Your task to perform on an android device: change the clock display to analog Image 0: 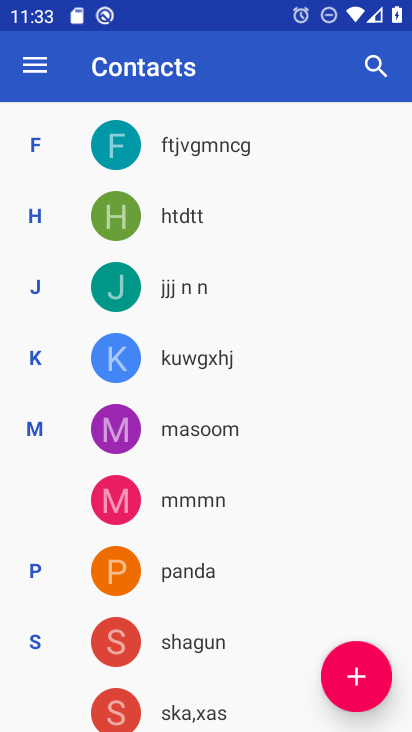
Step 0: press home button
Your task to perform on an android device: change the clock display to analog Image 1: 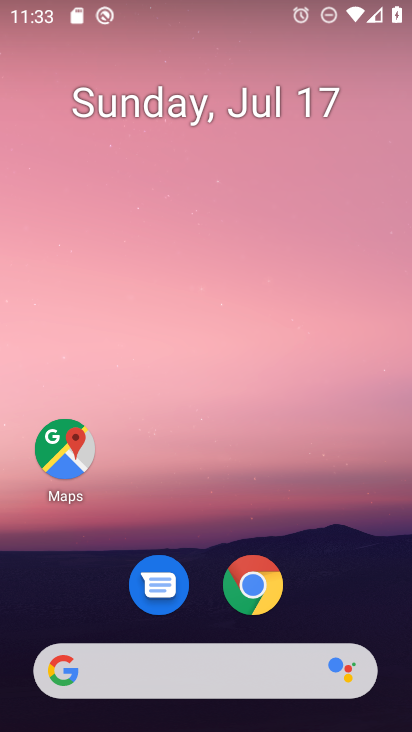
Step 1: drag from (210, 518) to (201, 21)
Your task to perform on an android device: change the clock display to analog Image 2: 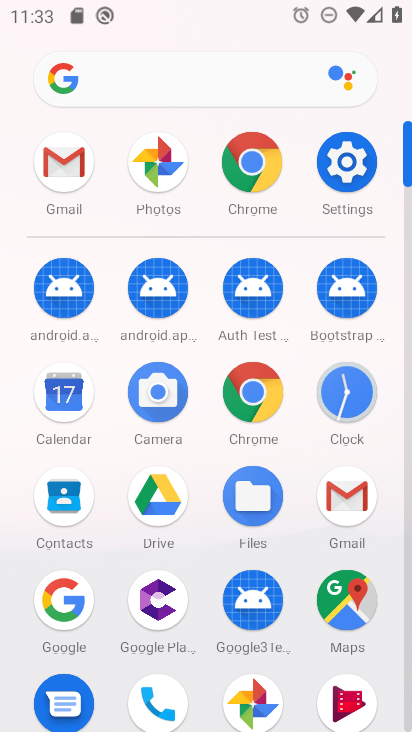
Step 2: click (354, 390)
Your task to perform on an android device: change the clock display to analog Image 3: 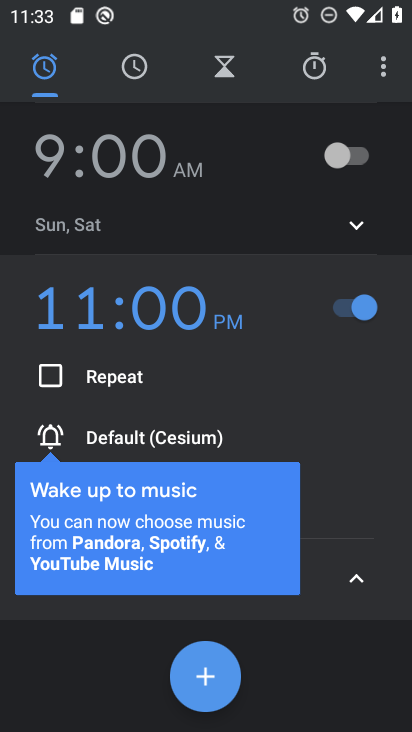
Step 3: click (382, 65)
Your task to perform on an android device: change the clock display to analog Image 4: 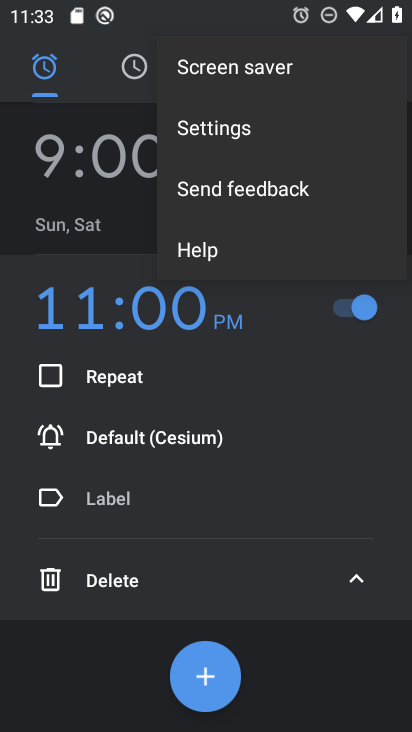
Step 4: click (248, 135)
Your task to perform on an android device: change the clock display to analog Image 5: 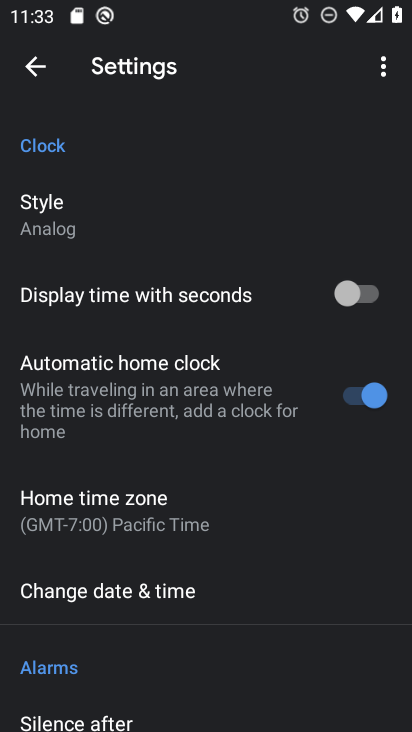
Step 5: click (37, 206)
Your task to perform on an android device: change the clock display to analog Image 6: 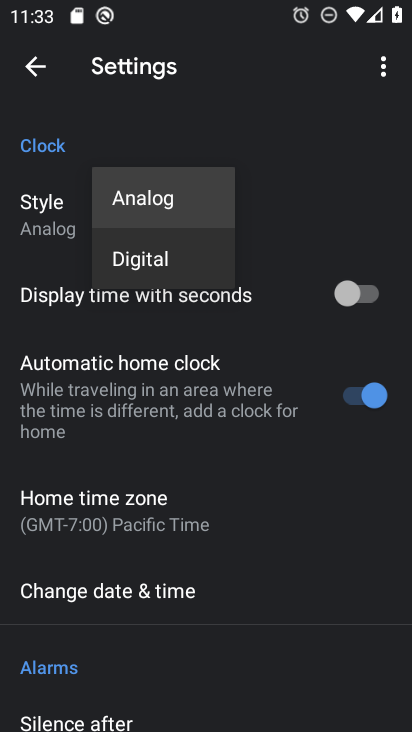
Step 6: click (137, 194)
Your task to perform on an android device: change the clock display to analog Image 7: 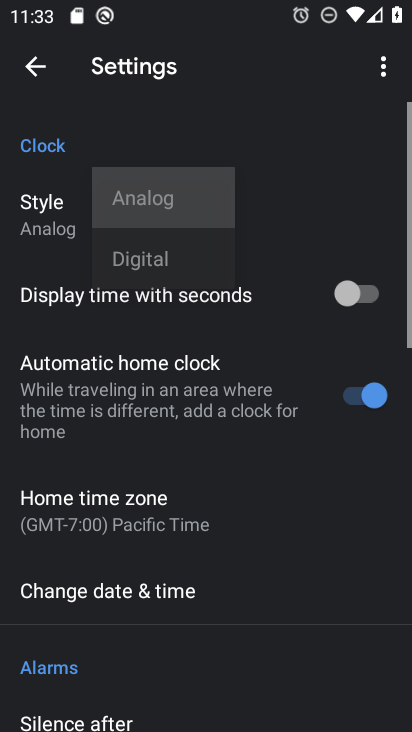
Step 7: click (37, 65)
Your task to perform on an android device: change the clock display to analog Image 8: 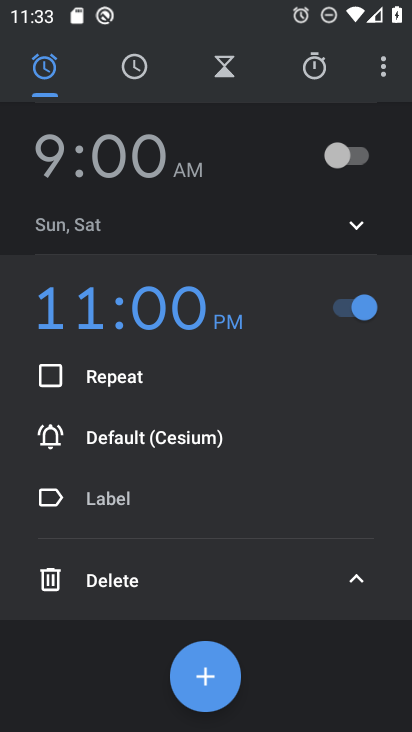
Step 8: click (128, 69)
Your task to perform on an android device: change the clock display to analog Image 9: 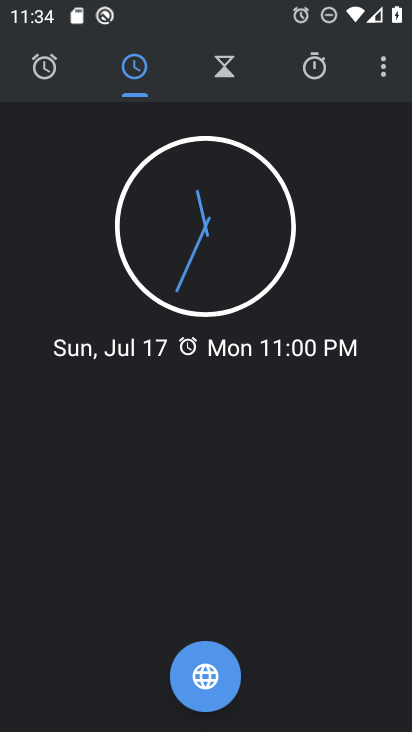
Step 9: task complete